Your task to perform on an android device: Go to network settings Image 0: 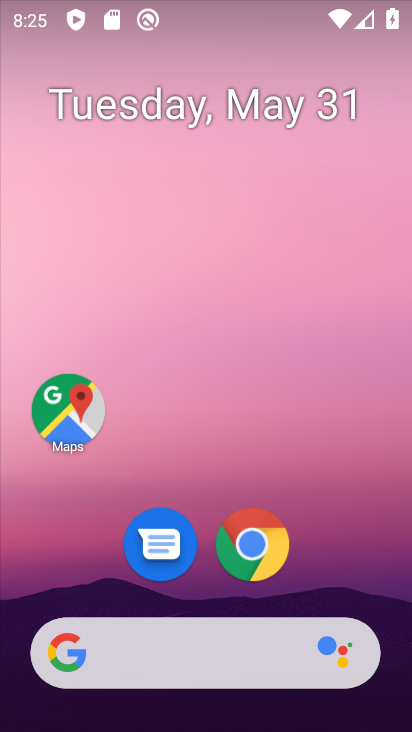
Step 0: drag from (202, 594) to (241, 19)
Your task to perform on an android device: Go to network settings Image 1: 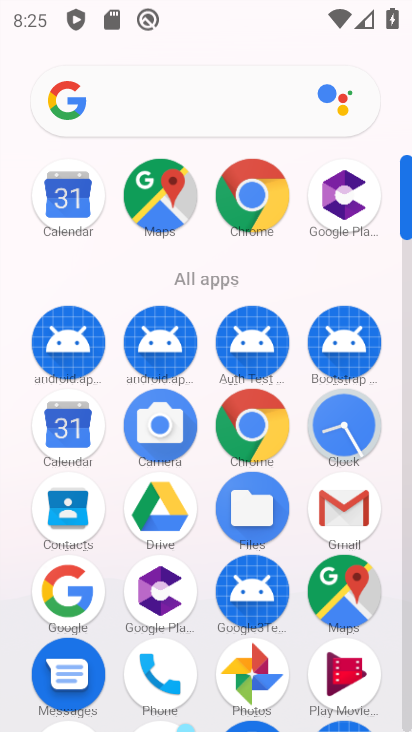
Step 1: drag from (204, 599) to (209, 80)
Your task to perform on an android device: Go to network settings Image 2: 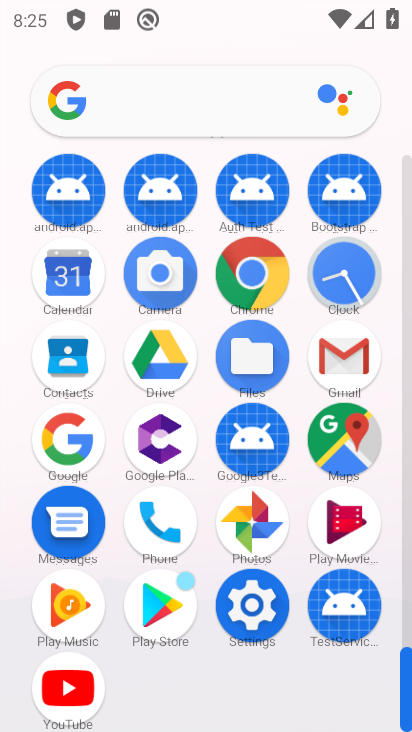
Step 2: click (247, 600)
Your task to perform on an android device: Go to network settings Image 3: 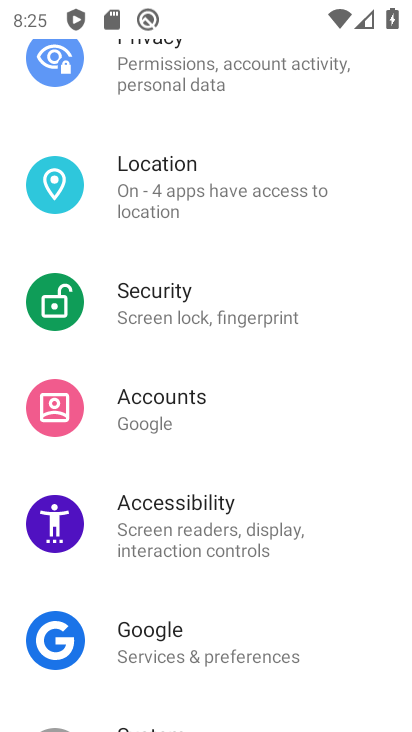
Step 3: drag from (201, 301) to (257, 648)
Your task to perform on an android device: Go to network settings Image 4: 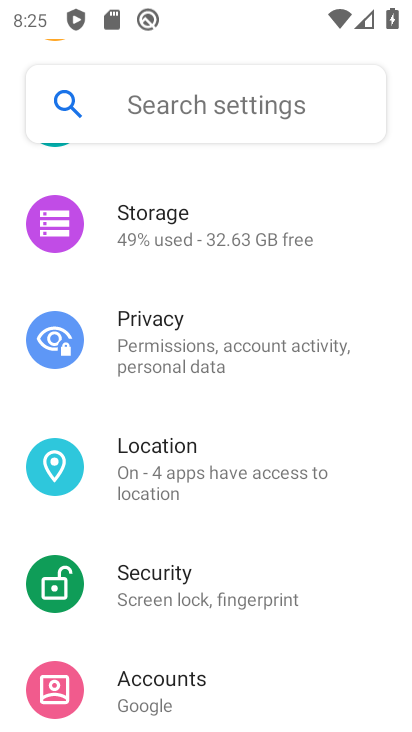
Step 4: drag from (186, 289) to (151, 701)
Your task to perform on an android device: Go to network settings Image 5: 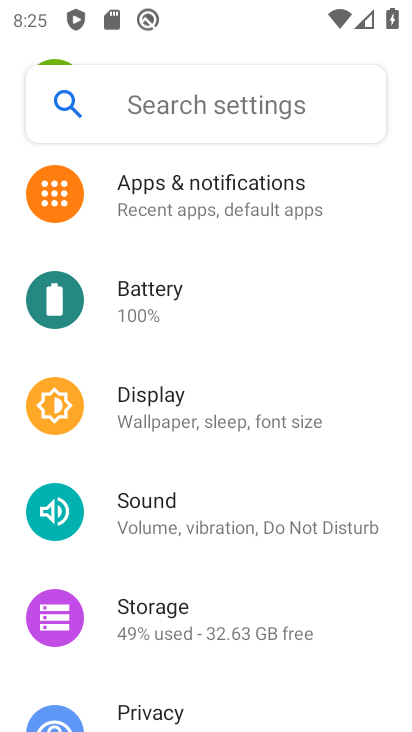
Step 5: drag from (134, 268) to (126, 637)
Your task to perform on an android device: Go to network settings Image 6: 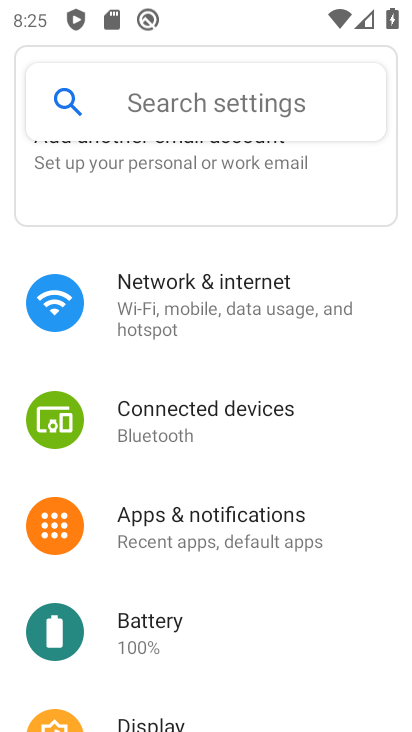
Step 6: click (173, 269)
Your task to perform on an android device: Go to network settings Image 7: 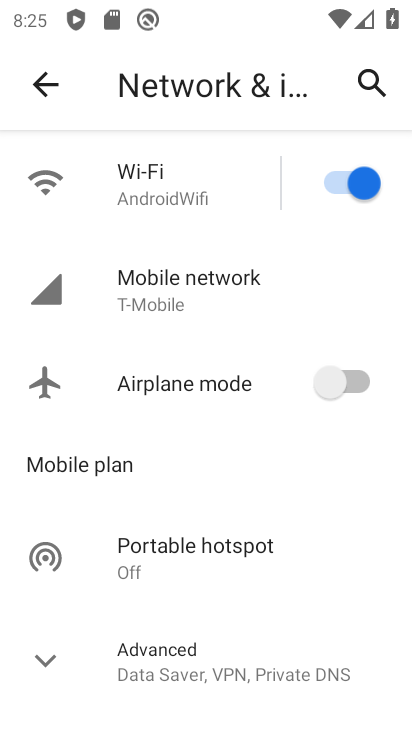
Step 7: click (109, 293)
Your task to perform on an android device: Go to network settings Image 8: 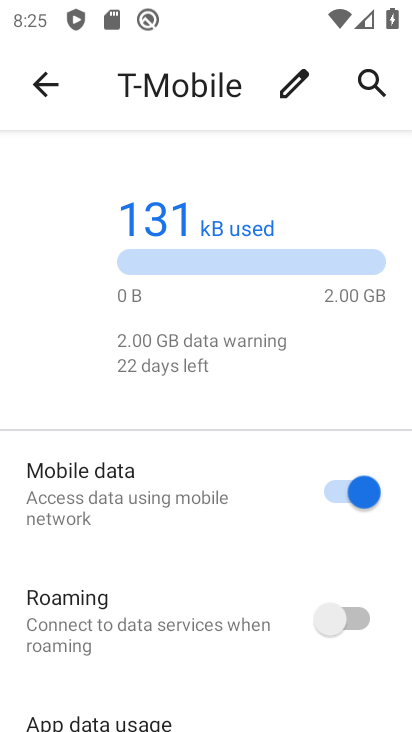
Step 8: task complete